Your task to perform on an android device: What is the news today? Image 0: 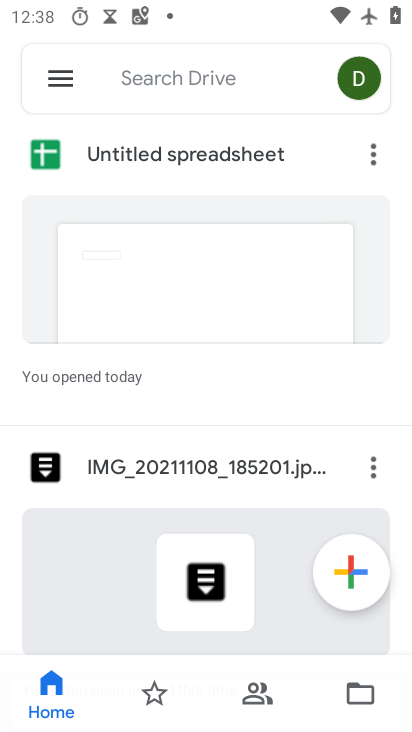
Step 0: press home button
Your task to perform on an android device: What is the news today? Image 1: 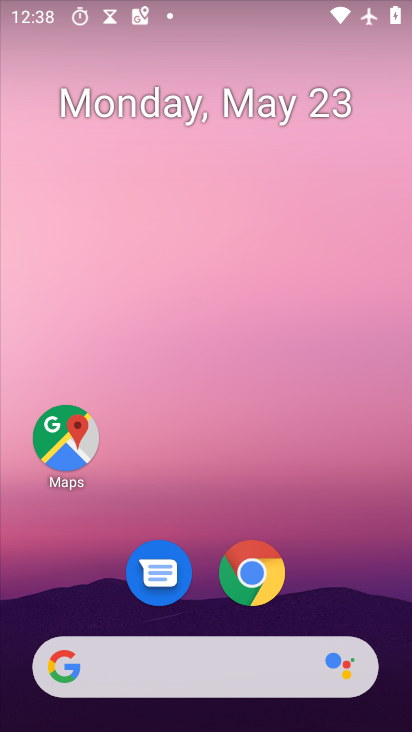
Step 1: click (74, 674)
Your task to perform on an android device: What is the news today? Image 2: 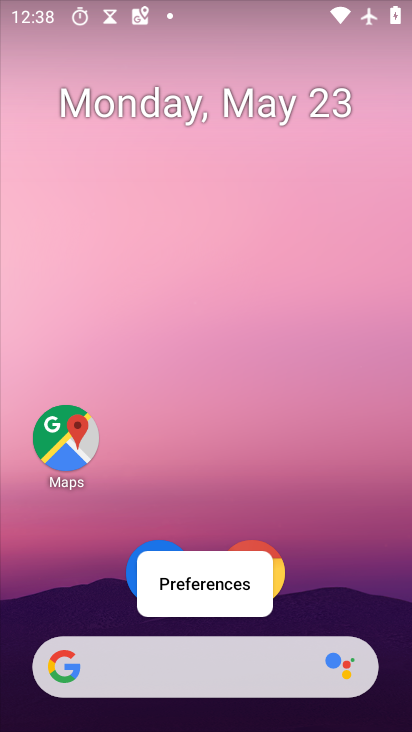
Step 2: click (73, 668)
Your task to perform on an android device: What is the news today? Image 3: 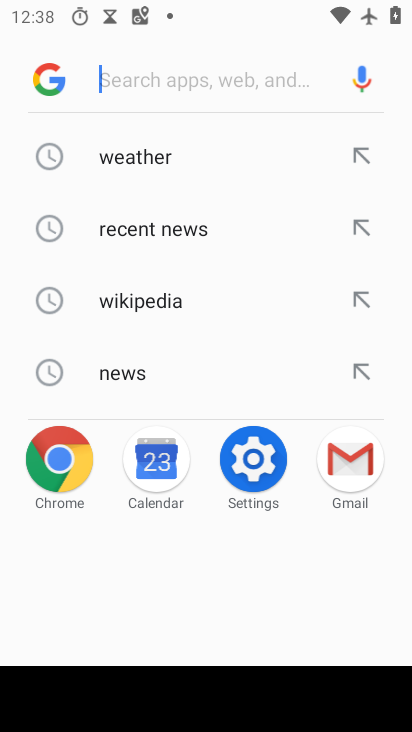
Step 3: click (142, 372)
Your task to perform on an android device: What is the news today? Image 4: 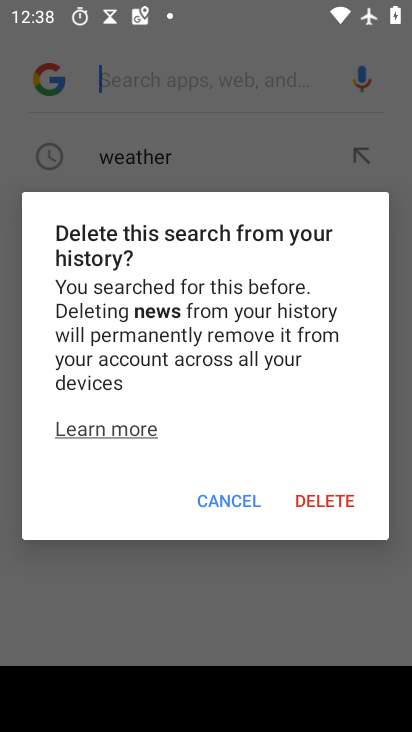
Step 4: click (235, 494)
Your task to perform on an android device: What is the news today? Image 5: 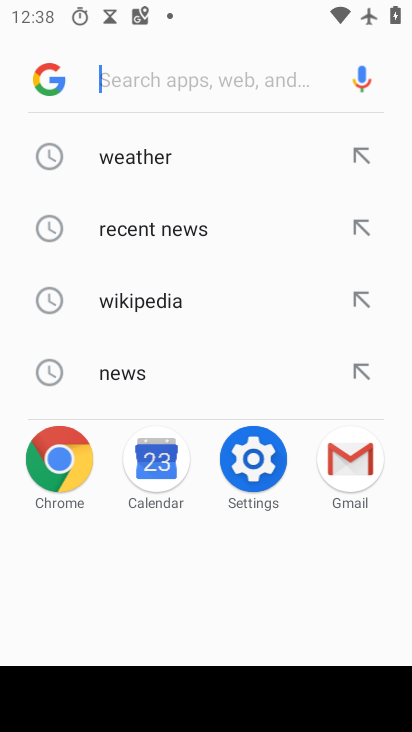
Step 5: click (122, 379)
Your task to perform on an android device: What is the news today? Image 6: 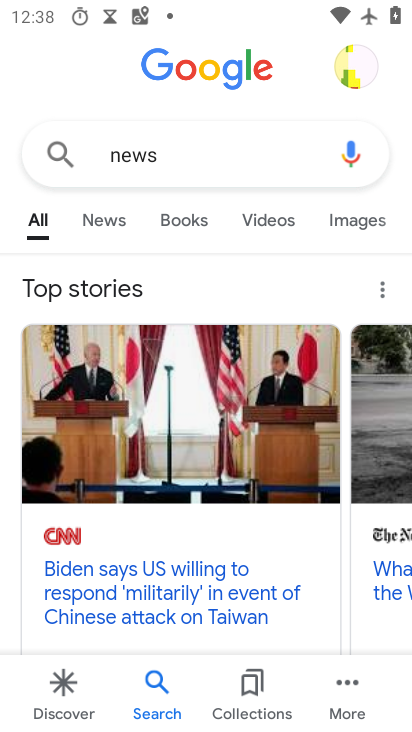
Step 6: click (94, 217)
Your task to perform on an android device: What is the news today? Image 7: 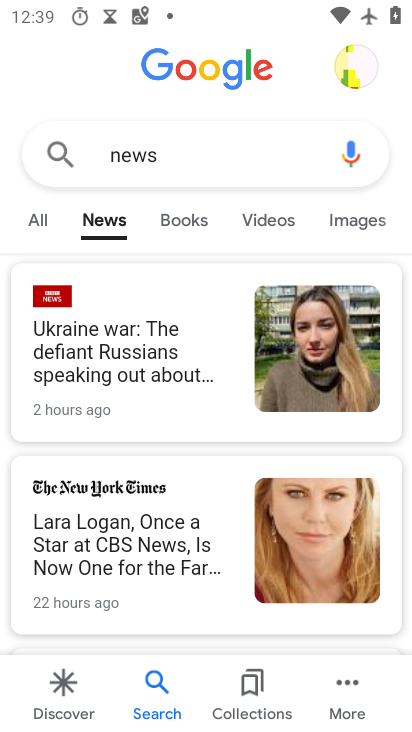
Step 7: task complete